Your task to perform on an android device: delete the emails in spam in the gmail app Image 0: 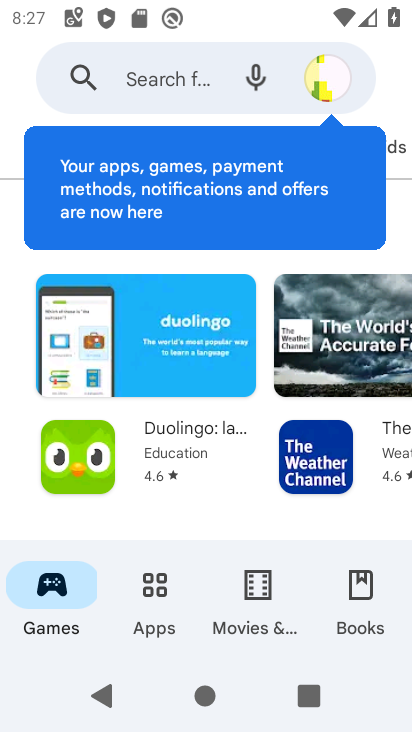
Step 0: press home button
Your task to perform on an android device: delete the emails in spam in the gmail app Image 1: 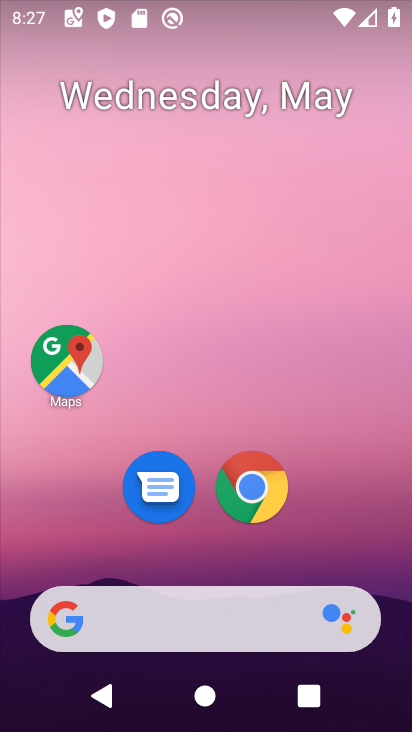
Step 1: drag from (339, 528) to (157, 88)
Your task to perform on an android device: delete the emails in spam in the gmail app Image 2: 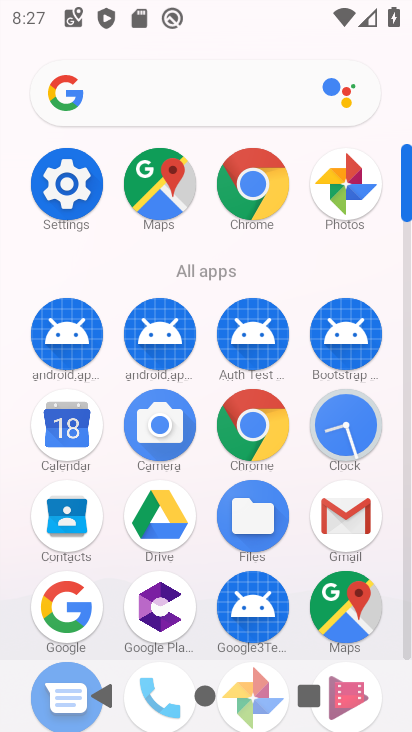
Step 2: click (353, 522)
Your task to perform on an android device: delete the emails in spam in the gmail app Image 3: 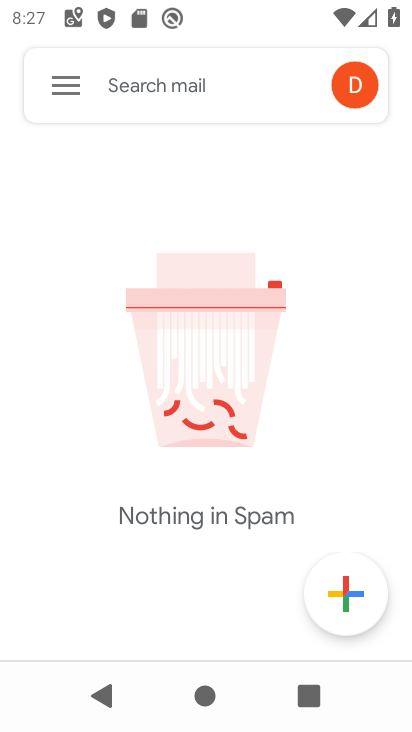
Step 3: click (62, 81)
Your task to perform on an android device: delete the emails in spam in the gmail app Image 4: 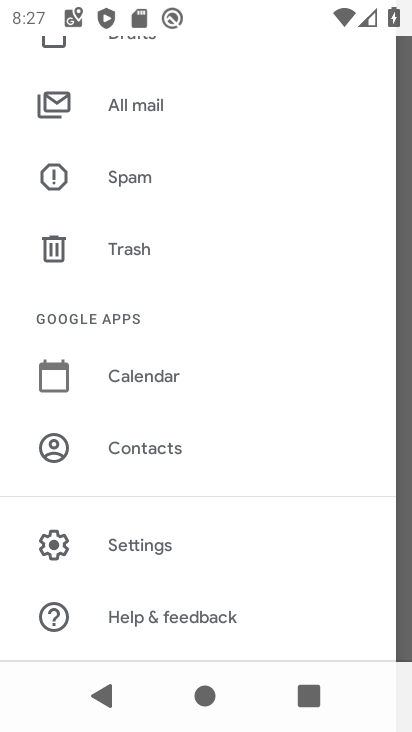
Step 4: task complete